Your task to perform on an android device: change the clock display to digital Image 0: 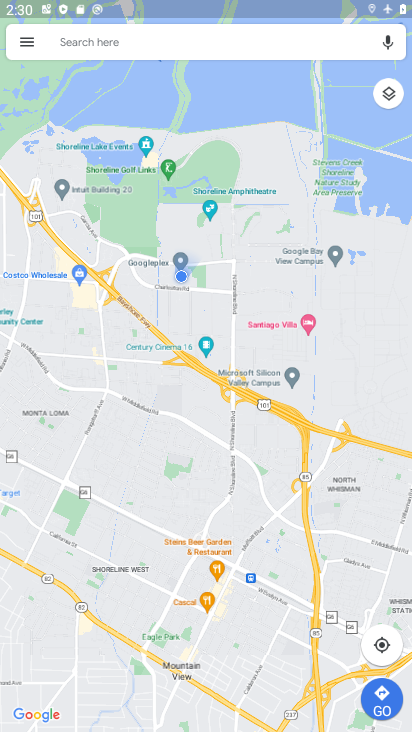
Step 0: press home button
Your task to perform on an android device: change the clock display to digital Image 1: 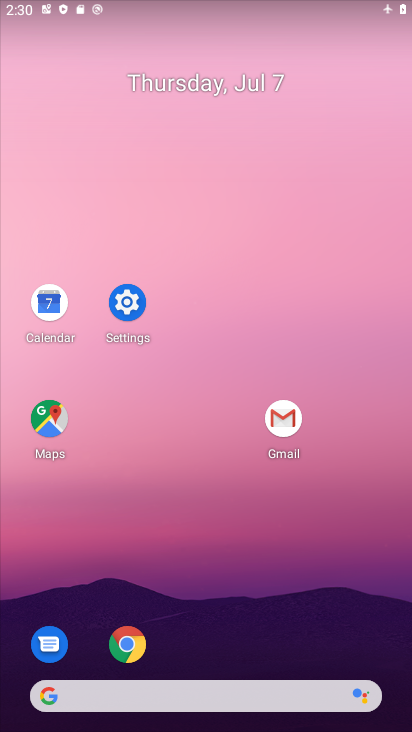
Step 1: drag from (395, 701) to (79, 26)
Your task to perform on an android device: change the clock display to digital Image 2: 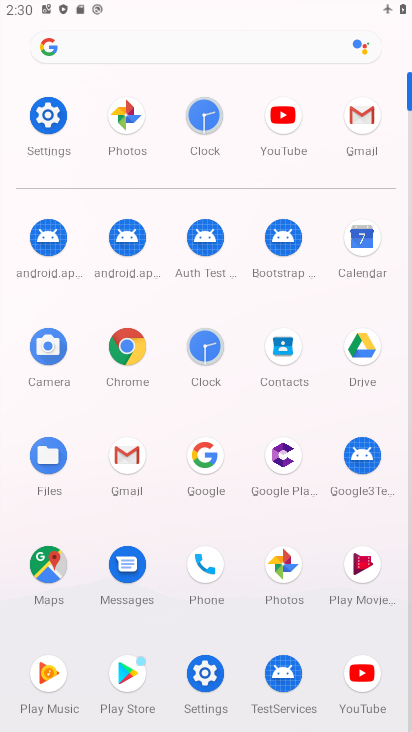
Step 2: click (216, 347)
Your task to perform on an android device: change the clock display to digital Image 3: 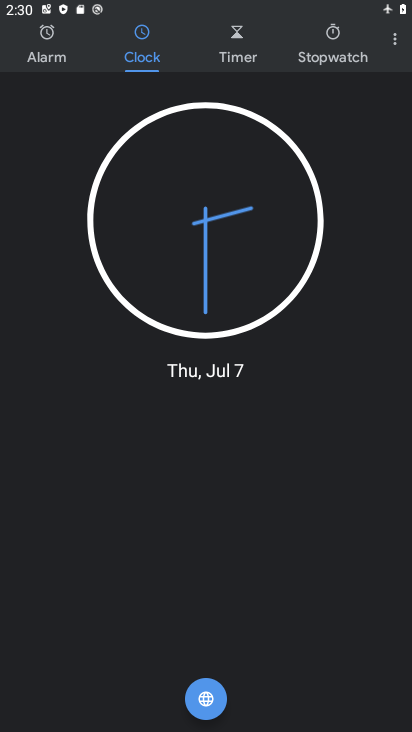
Step 3: click (398, 39)
Your task to perform on an android device: change the clock display to digital Image 4: 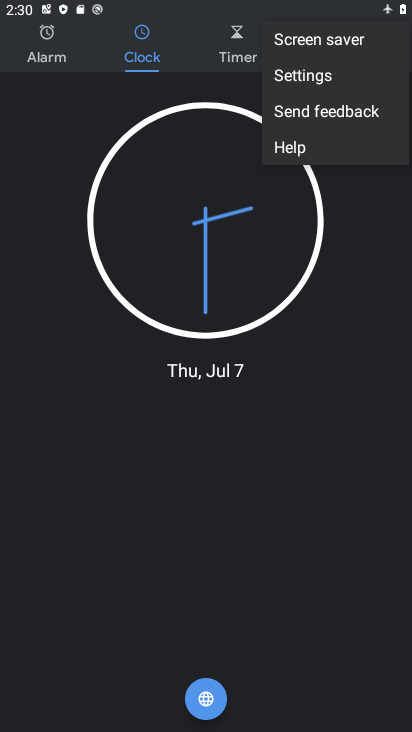
Step 4: click (295, 70)
Your task to perform on an android device: change the clock display to digital Image 5: 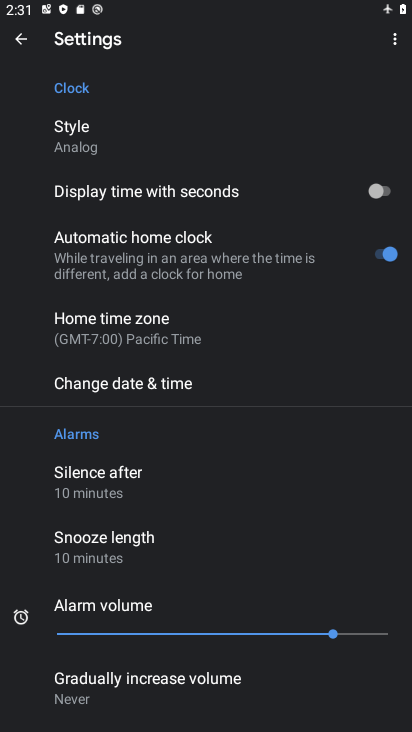
Step 5: click (88, 121)
Your task to perform on an android device: change the clock display to digital Image 6: 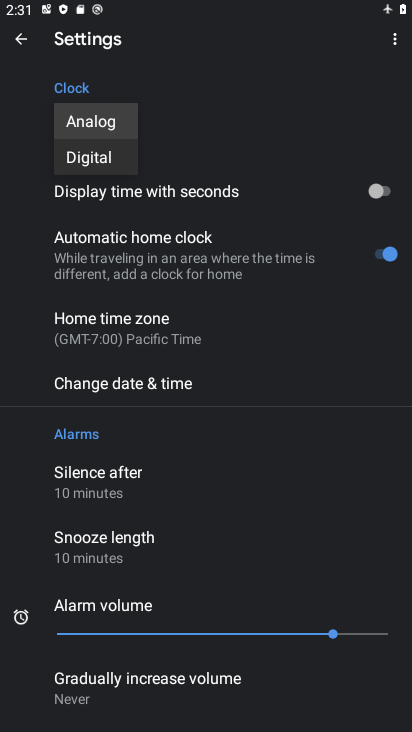
Step 6: click (75, 153)
Your task to perform on an android device: change the clock display to digital Image 7: 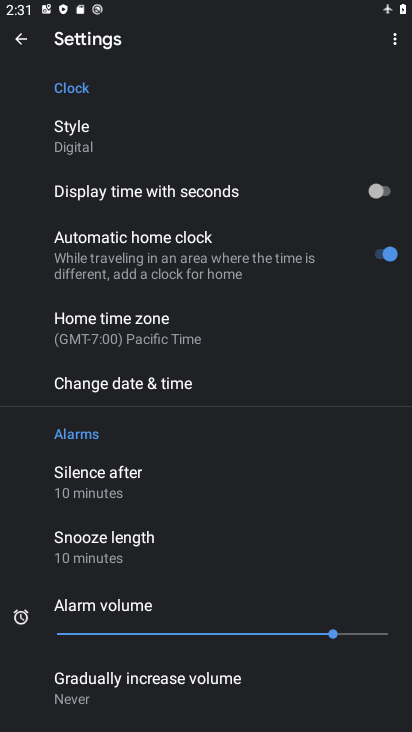
Step 7: task complete